Your task to perform on an android device: Go to accessibility settings Image 0: 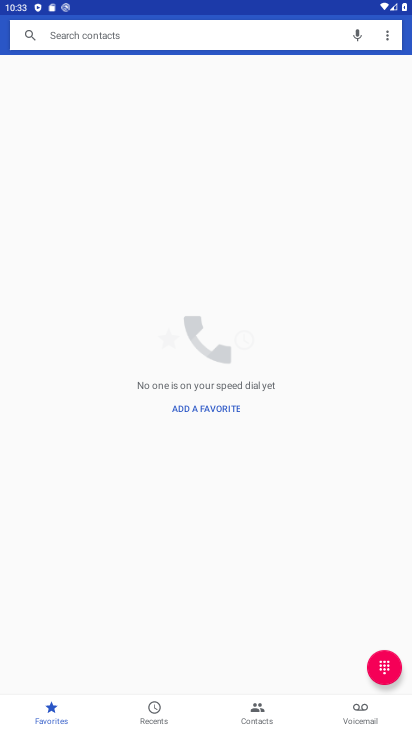
Step 0: press home button
Your task to perform on an android device: Go to accessibility settings Image 1: 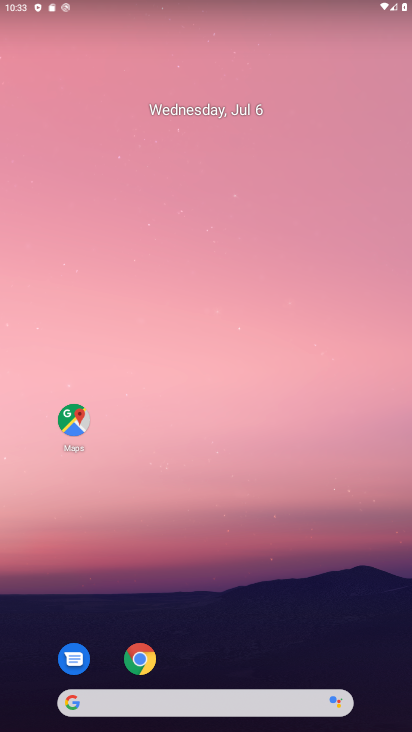
Step 1: drag from (188, 554) to (148, 258)
Your task to perform on an android device: Go to accessibility settings Image 2: 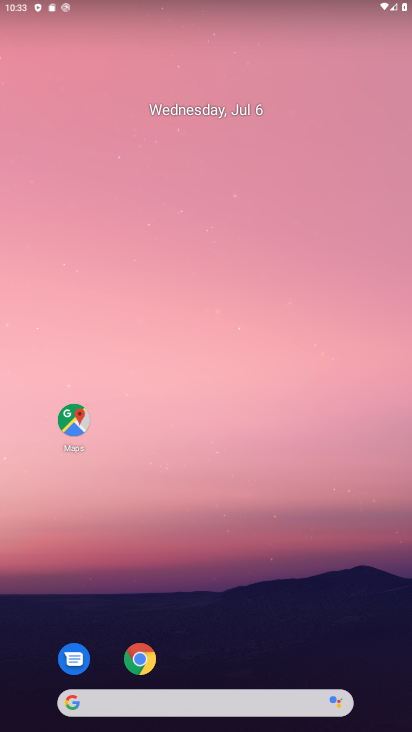
Step 2: drag from (250, 611) to (160, 277)
Your task to perform on an android device: Go to accessibility settings Image 3: 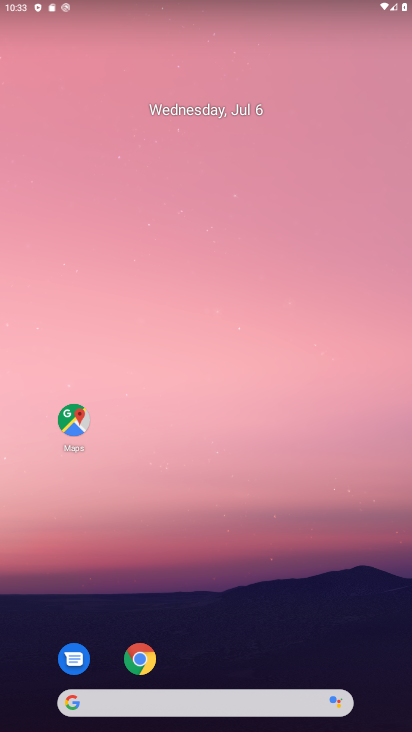
Step 3: drag from (197, 530) to (169, 251)
Your task to perform on an android device: Go to accessibility settings Image 4: 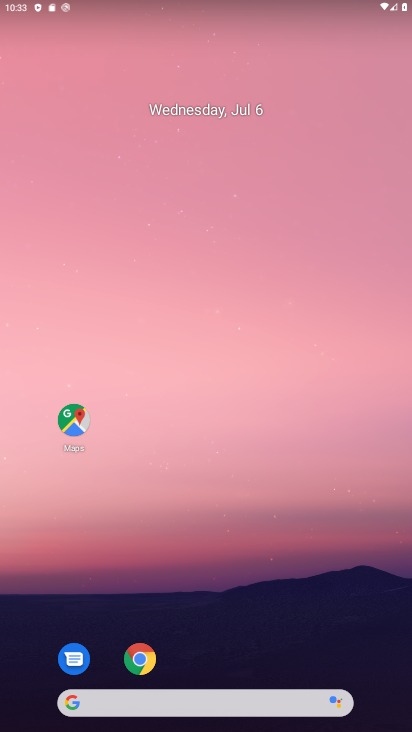
Step 4: drag from (239, 647) to (202, 307)
Your task to perform on an android device: Go to accessibility settings Image 5: 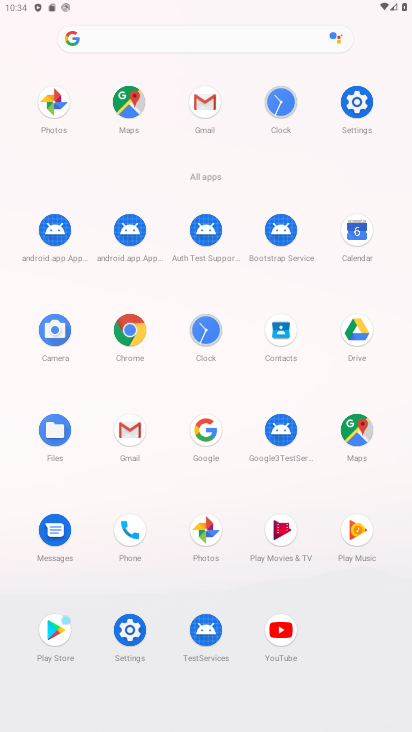
Step 5: click (354, 99)
Your task to perform on an android device: Go to accessibility settings Image 6: 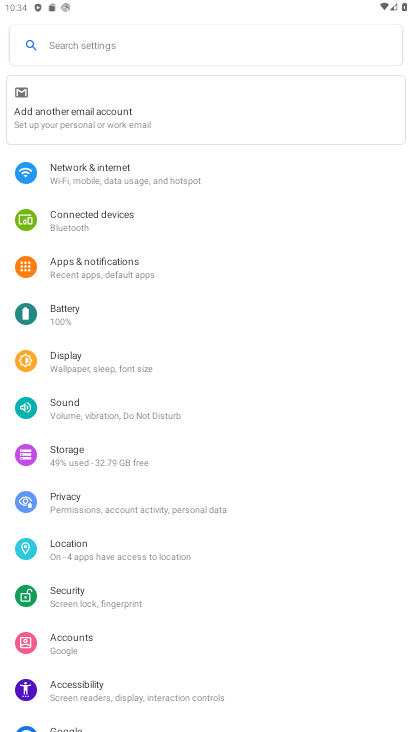
Step 6: click (77, 685)
Your task to perform on an android device: Go to accessibility settings Image 7: 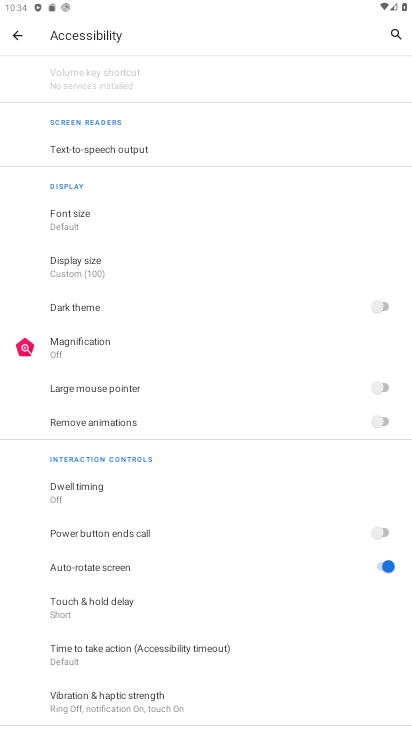
Step 7: task complete